Your task to perform on an android device: set the timer Image 0: 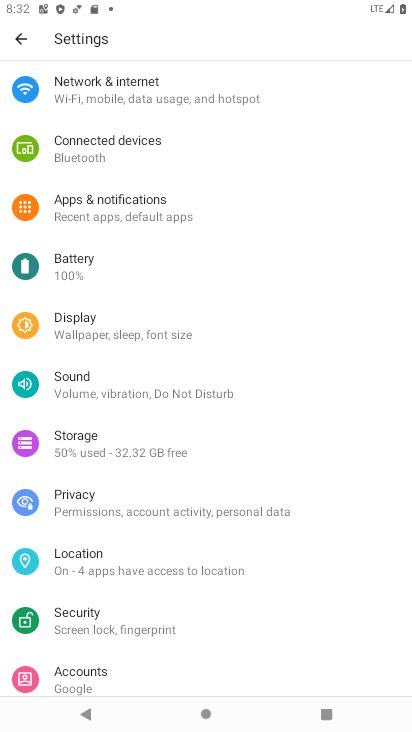
Step 0: press home button
Your task to perform on an android device: set the timer Image 1: 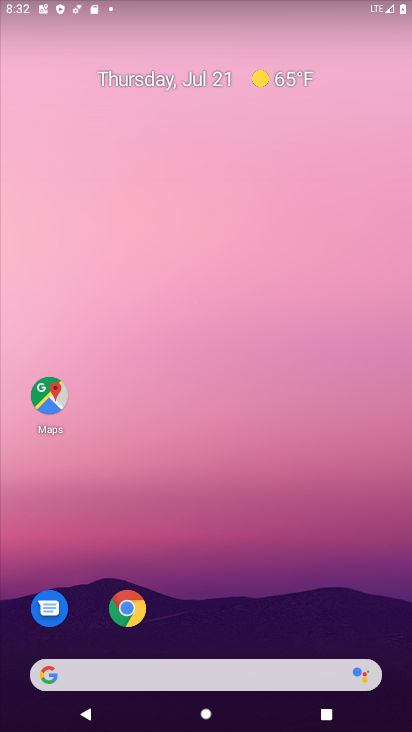
Step 1: drag from (174, 679) to (279, 166)
Your task to perform on an android device: set the timer Image 2: 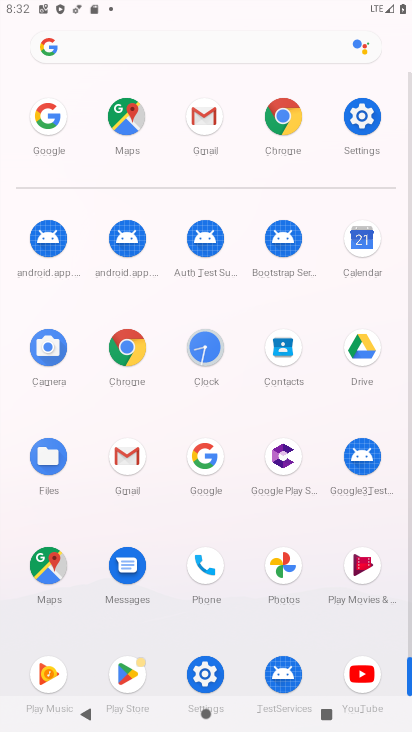
Step 2: click (206, 347)
Your task to perform on an android device: set the timer Image 3: 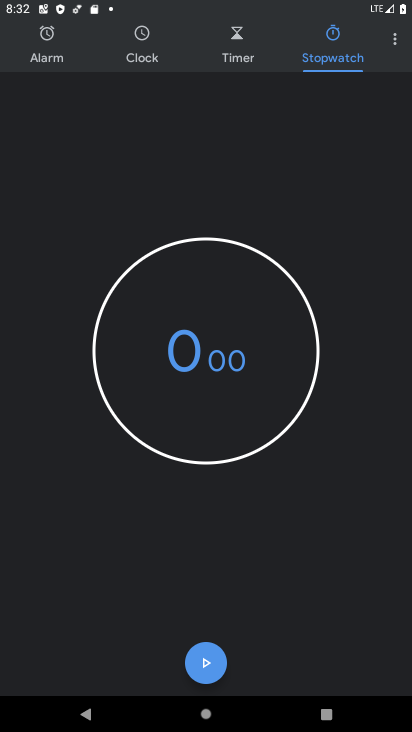
Step 3: click (240, 58)
Your task to perform on an android device: set the timer Image 4: 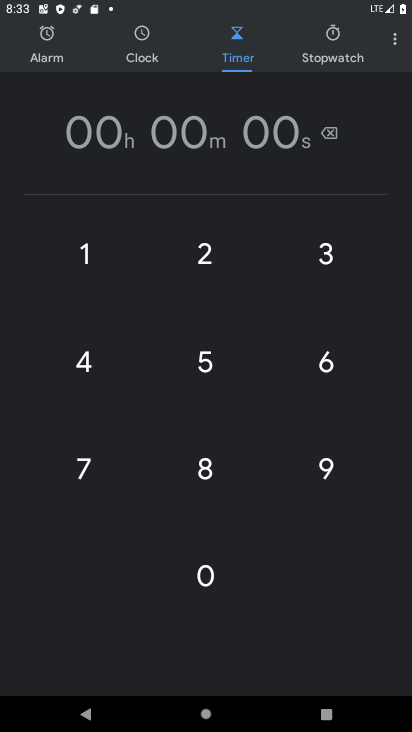
Step 4: type "1357"
Your task to perform on an android device: set the timer Image 5: 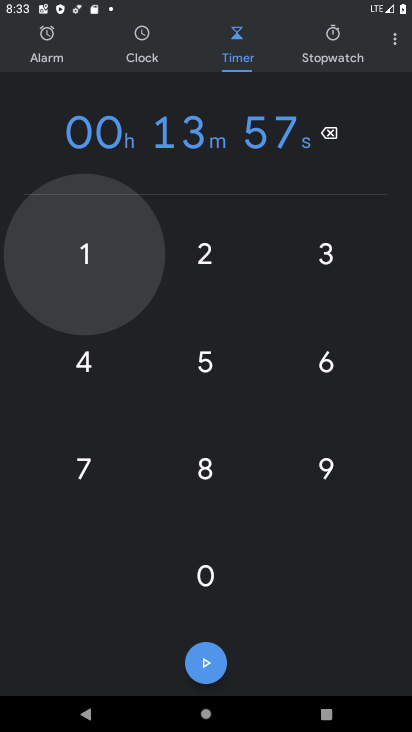
Step 5: click (212, 662)
Your task to perform on an android device: set the timer Image 6: 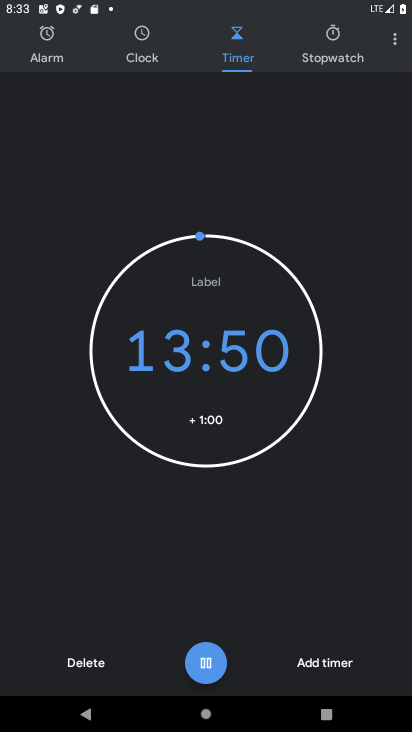
Step 6: click (207, 663)
Your task to perform on an android device: set the timer Image 7: 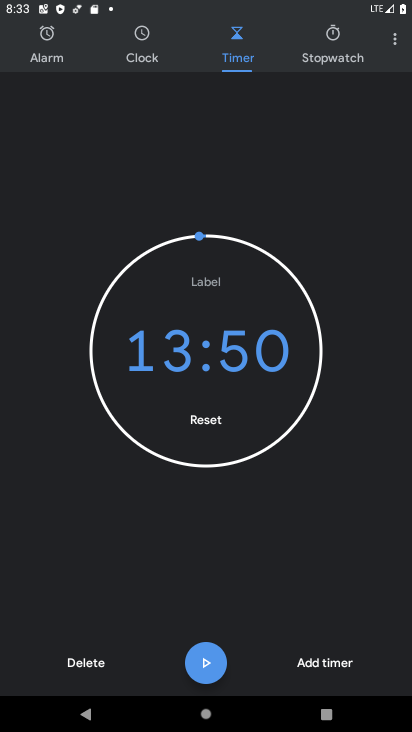
Step 7: task complete